Your task to perform on an android device: turn on location history Image 0: 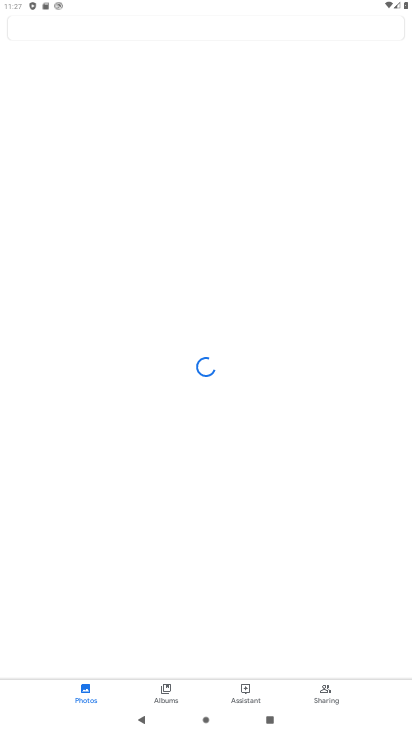
Step 0: press home button
Your task to perform on an android device: turn on location history Image 1: 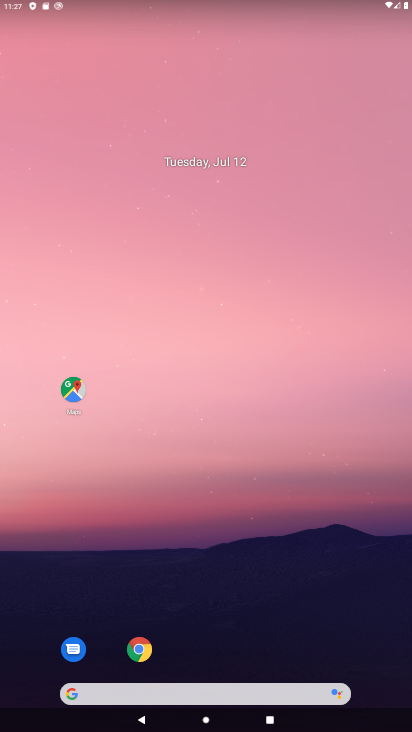
Step 1: drag from (289, 587) to (358, 16)
Your task to perform on an android device: turn on location history Image 2: 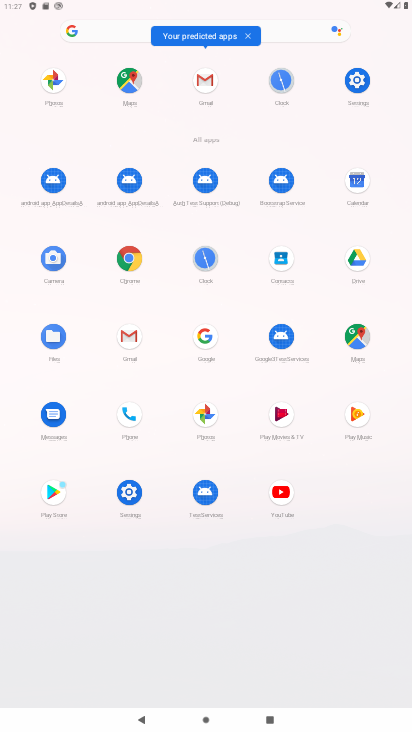
Step 2: click (127, 495)
Your task to perform on an android device: turn on location history Image 3: 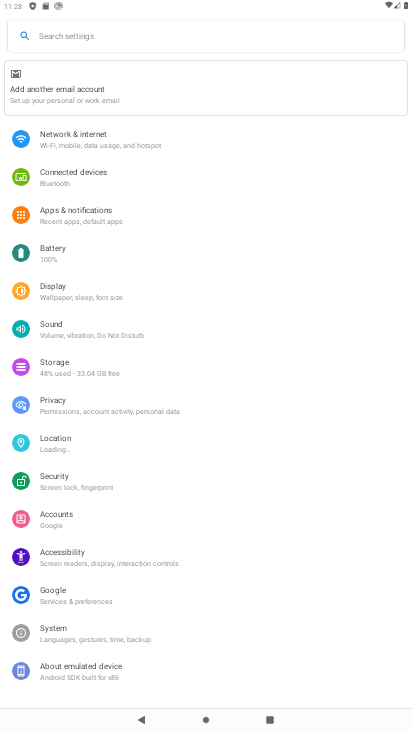
Step 3: click (104, 443)
Your task to perform on an android device: turn on location history Image 4: 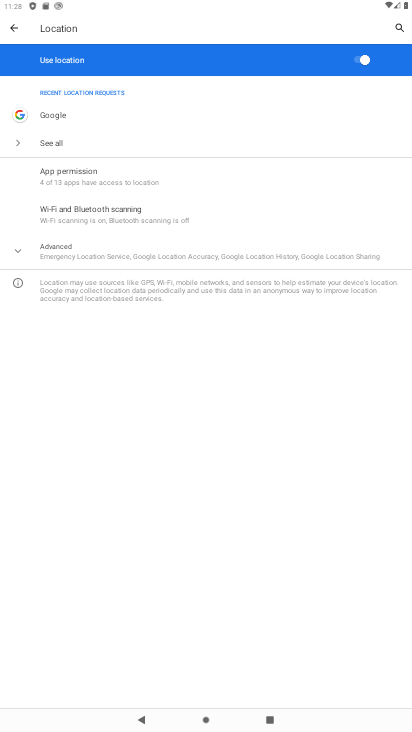
Step 4: click (113, 253)
Your task to perform on an android device: turn on location history Image 5: 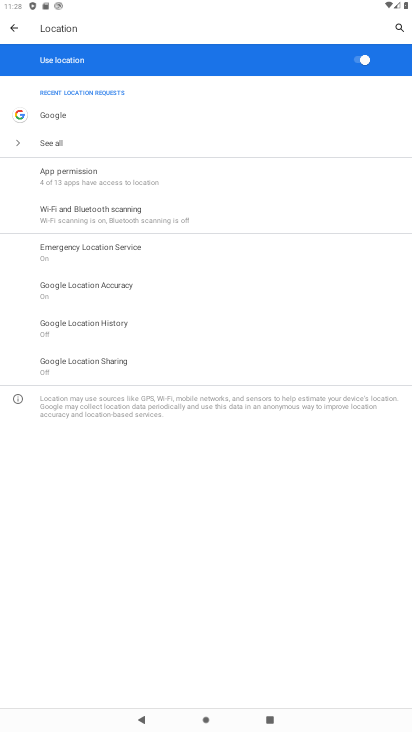
Step 5: click (122, 321)
Your task to perform on an android device: turn on location history Image 6: 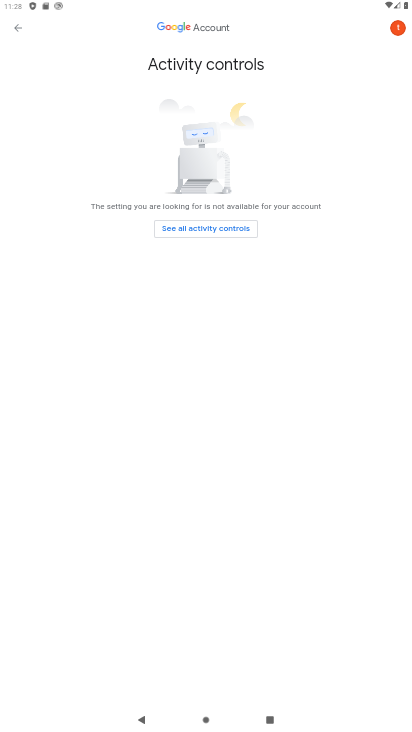
Step 6: click (225, 229)
Your task to perform on an android device: turn on location history Image 7: 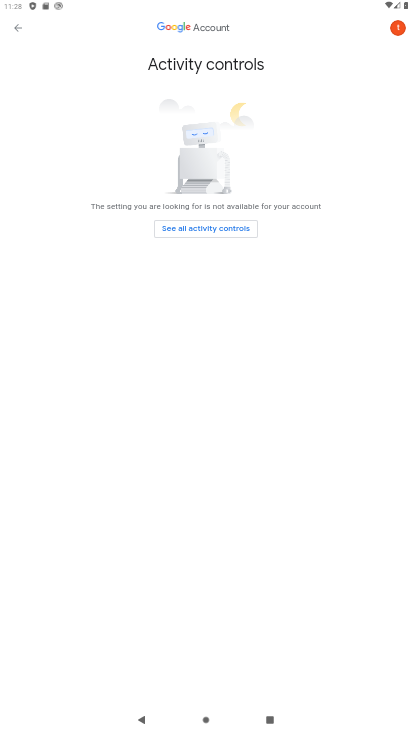
Step 7: click (201, 225)
Your task to perform on an android device: turn on location history Image 8: 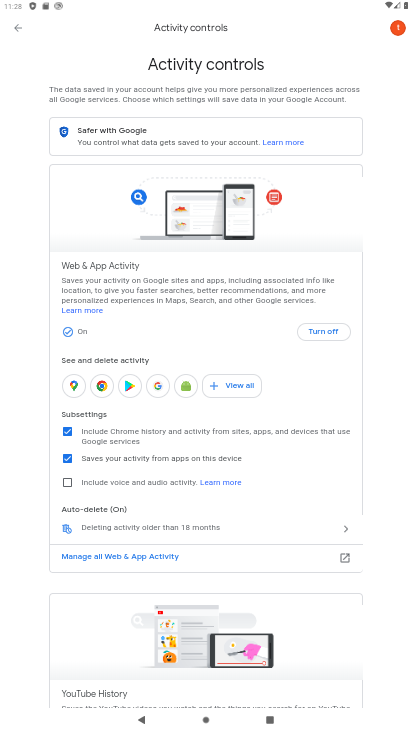
Step 8: task complete